Your task to perform on an android device: turn on showing notifications on the lock screen Image 0: 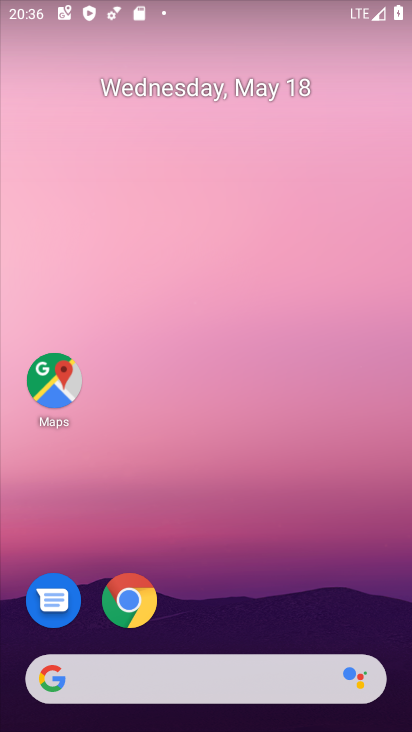
Step 0: drag from (270, 605) to (320, 97)
Your task to perform on an android device: turn on showing notifications on the lock screen Image 1: 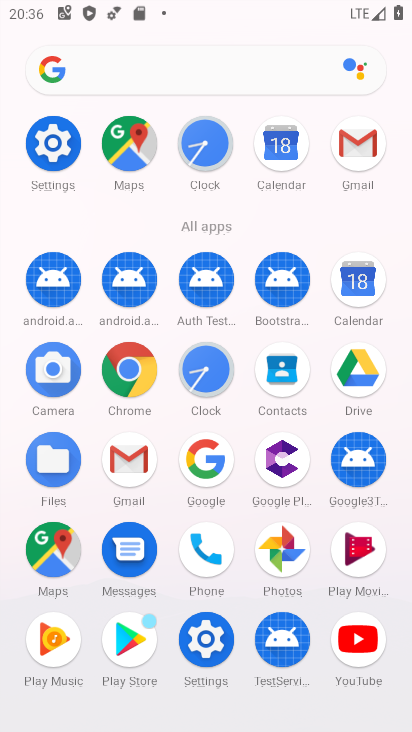
Step 1: click (61, 144)
Your task to perform on an android device: turn on showing notifications on the lock screen Image 2: 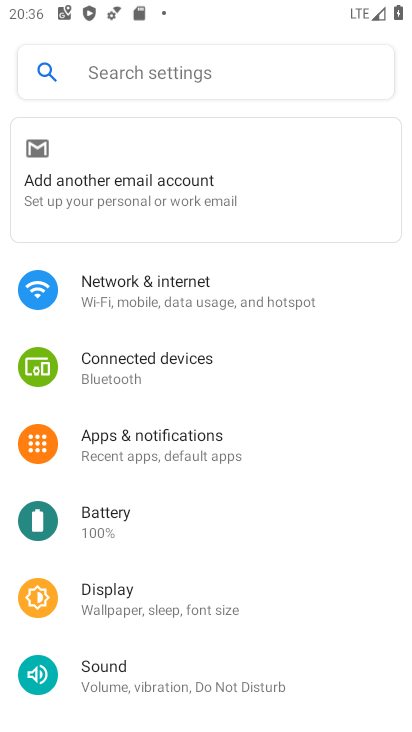
Step 2: click (265, 454)
Your task to perform on an android device: turn on showing notifications on the lock screen Image 3: 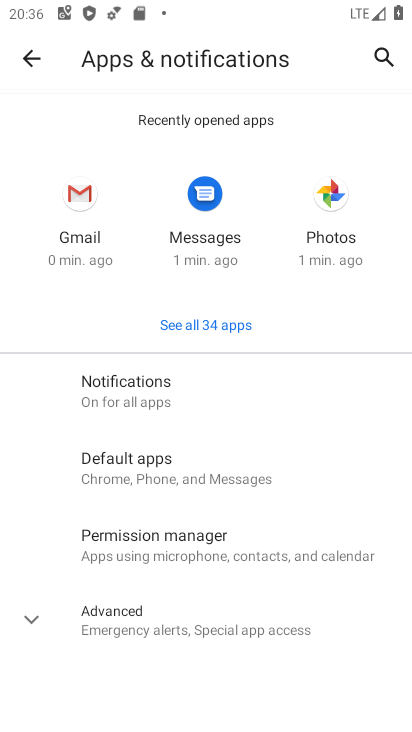
Step 3: click (133, 400)
Your task to perform on an android device: turn on showing notifications on the lock screen Image 4: 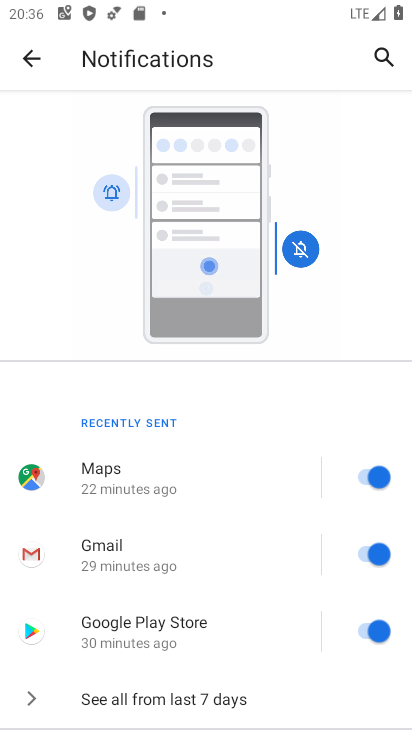
Step 4: drag from (199, 668) to (231, 122)
Your task to perform on an android device: turn on showing notifications on the lock screen Image 5: 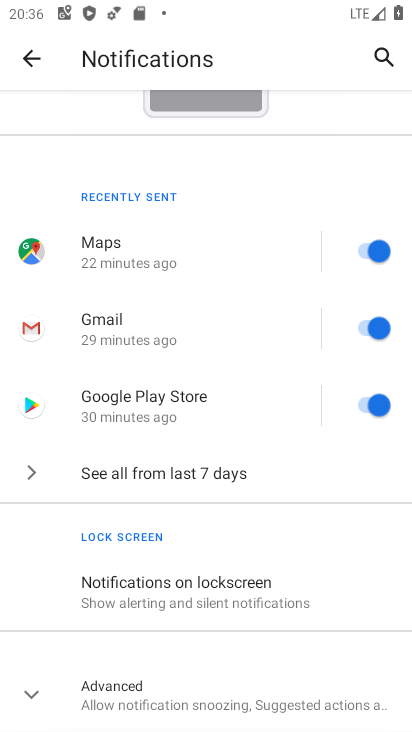
Step 5: click (152, 596)
Your task to perform on an android device: turn on showing notifications on the lock screen Image 6: 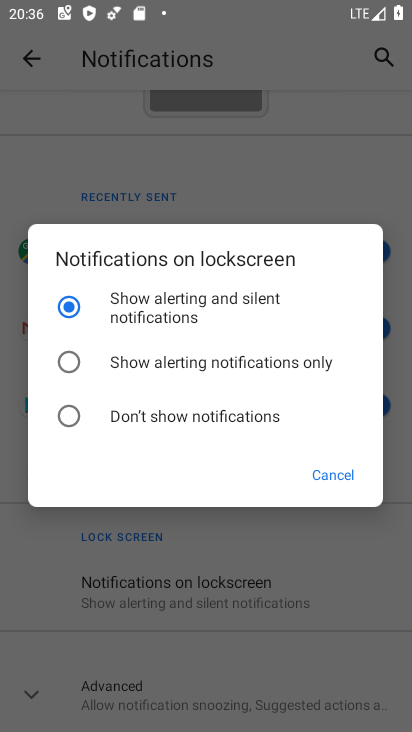
Step 6: click (59, 301)
Your task to perform on an android device: turn on showing notifications on the lock screen Image 7: 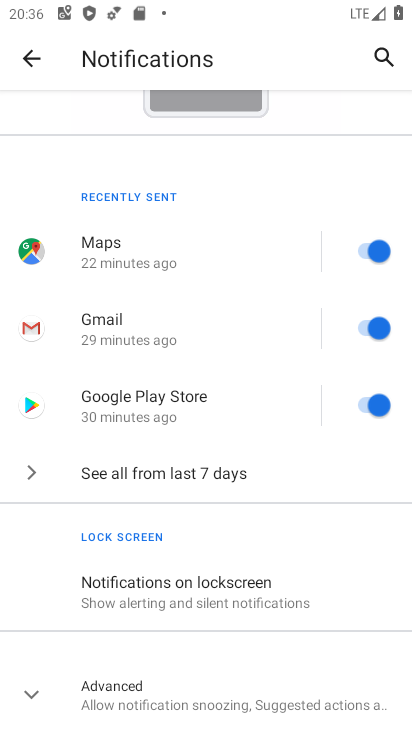
Step 7: task complete